Your task to perform on an android device: Open internet settings Image 0: 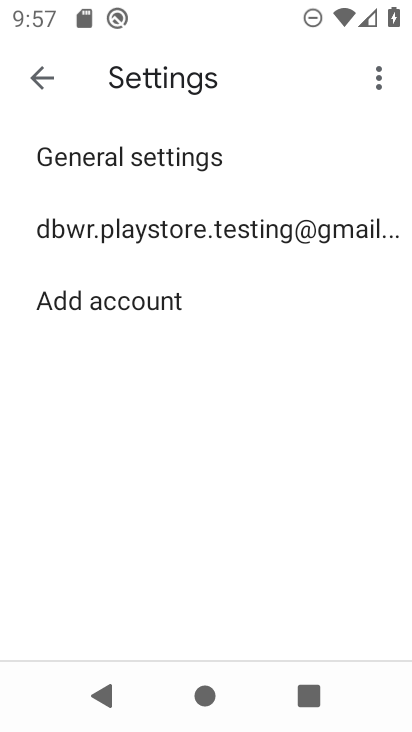
Step 0: press home button
Your task to perform on an android device: Open internet settings Image 1: 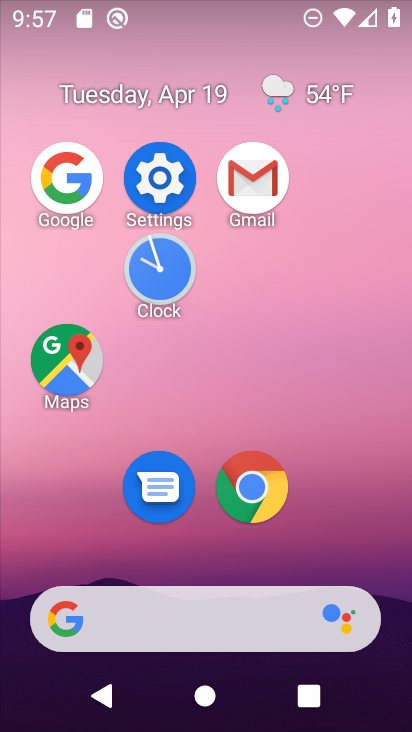
Step 1: click (158, 160)
Your task to perform on an android device: Open internet settings Image 2: 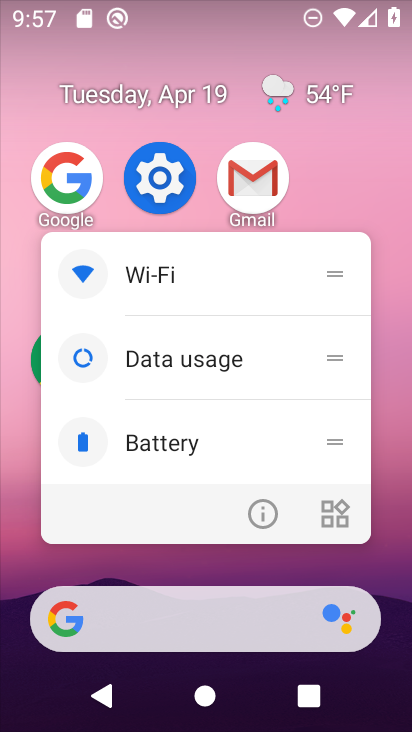
Step 2: click (161, 181)
Your task to perform on an android device: Open internet settings Image 3: 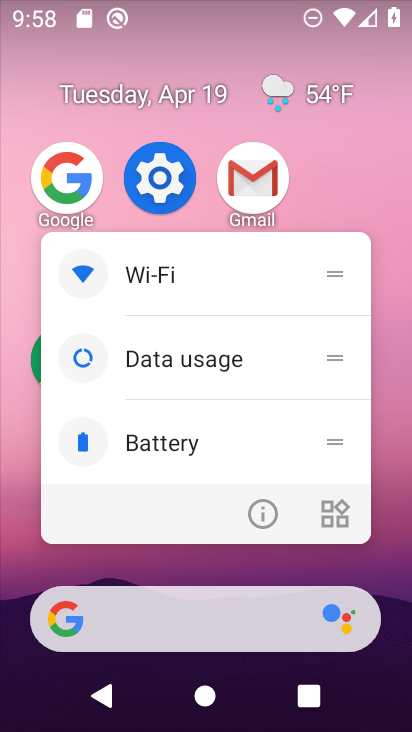
Step 3: click (161, 181)
Your task to perform on an android device: Open internet settings Image 4: 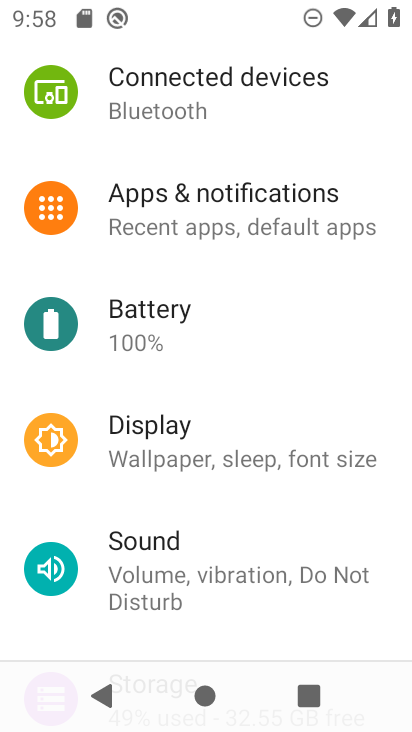
Step 4: drag from (271, 137) to (232, 525)
Your task to perform on an android device: Open internet settings Image 5: 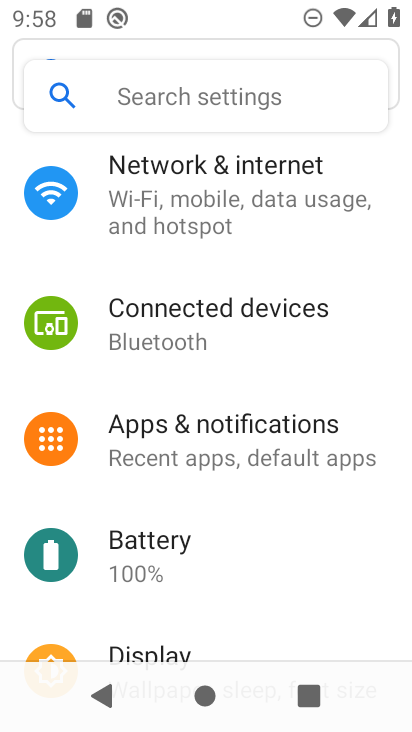
Step 5: click (301, 184)
Your task to perform on an android device: Open internet settings Image 6: 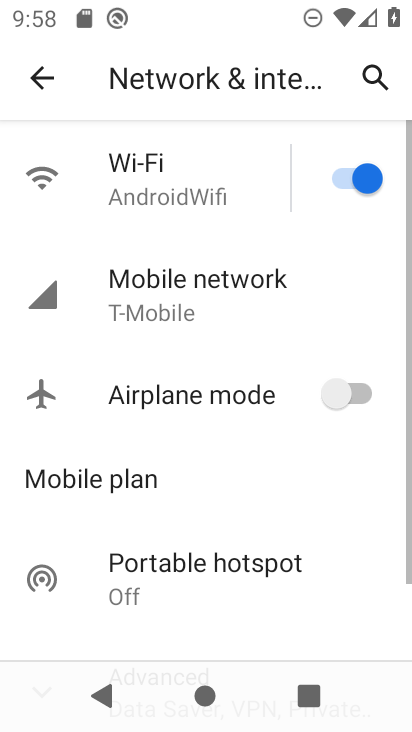
Step 6: task complete